Your task to perform on an android device: Search for the best gaming mouse on Best Buy. Image 0: 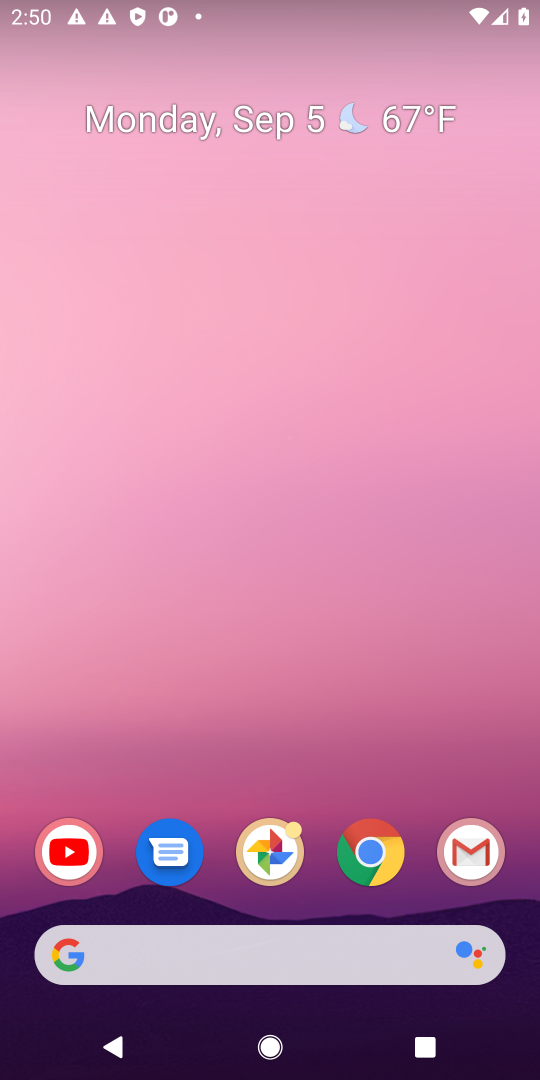
Step 0: click (370, 854)
Your task to perform on an android device: Search for the best gaming mouse on Best Buy. Image 1: 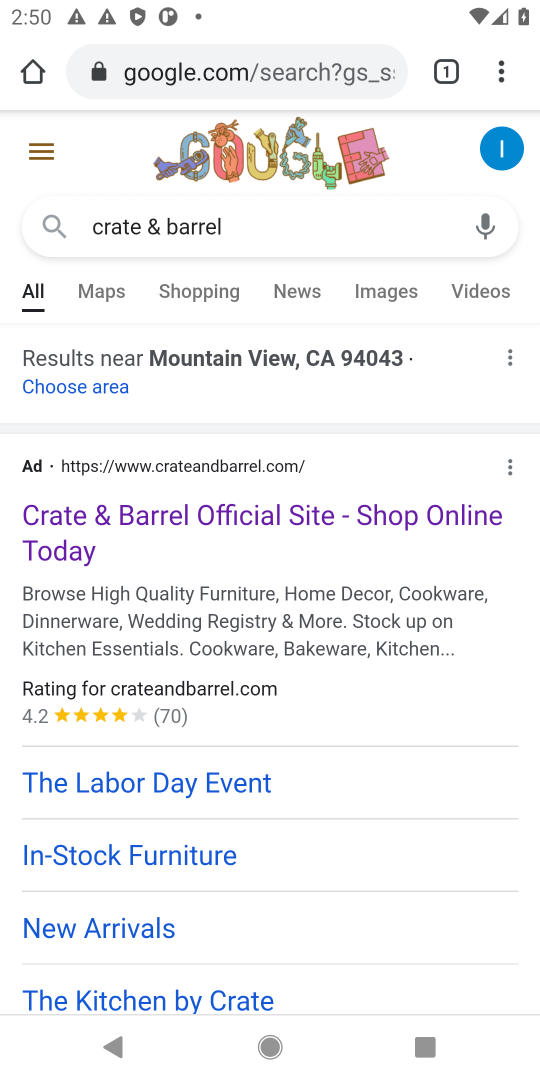
Step 1: click (248, 224)
Your task to perform on an android device: Search for the best gaming mouse on Best Buy. Image 2: 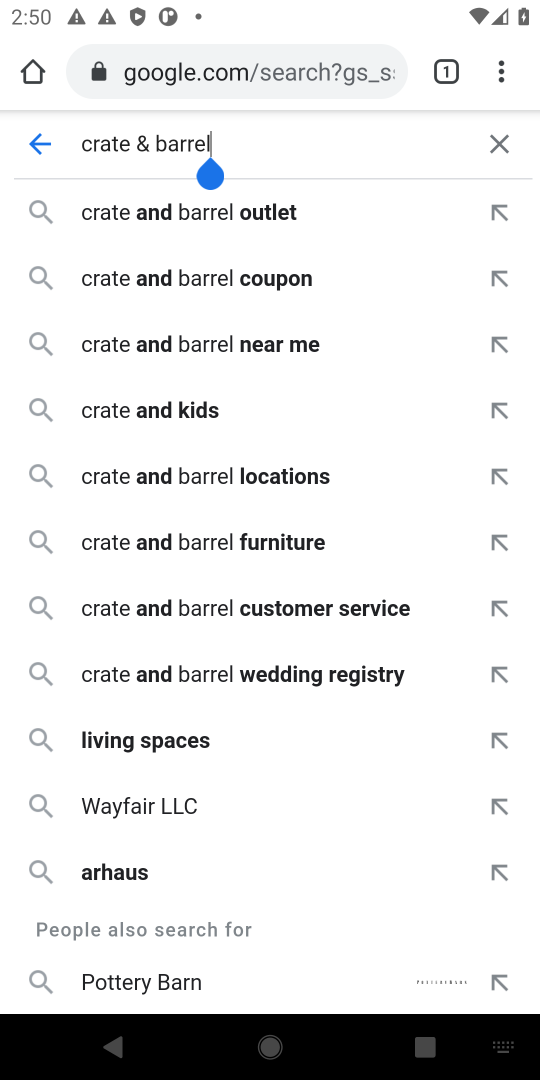
Step 2: click (502, 141)
Your task to perform on an android device: Search for the best gaming mouse on Best Buy. Image 3: 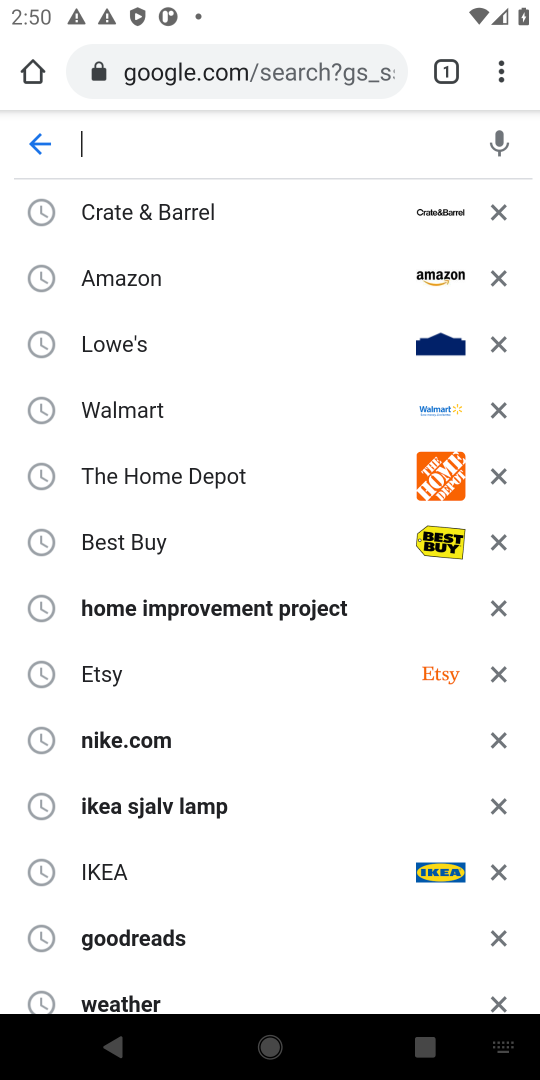
Step 3: type "Best buy"
Your task to perform on an android device: Search for the best gaming mouse on Best Buy. Image 4: 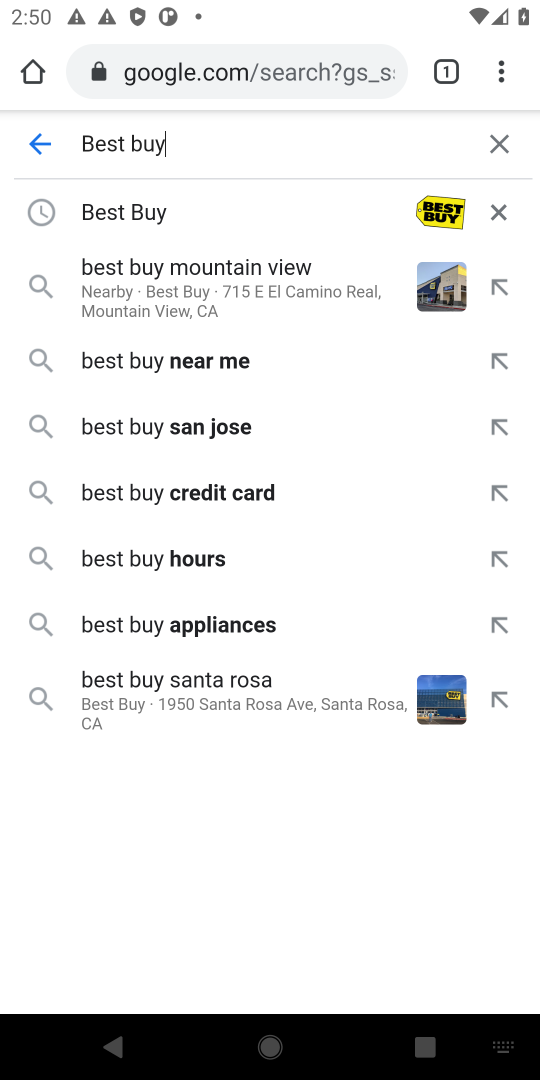
Step 4: click (122, 211)
Your task to perform on an android device: Search for the best gaming mouse on Best Buy. Image 5: 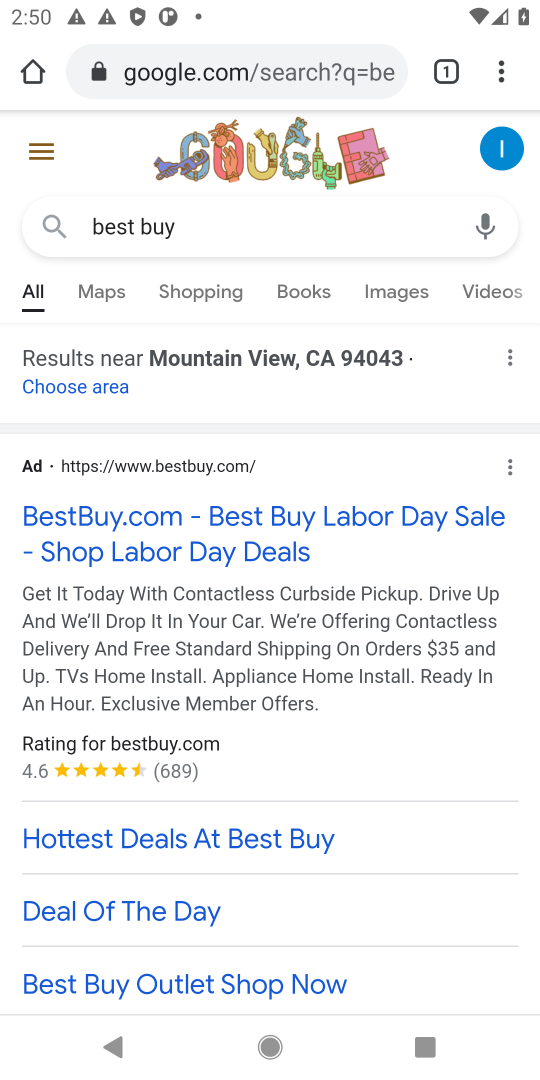
Step 5: click (126, 530)
Your task to perform on an android device: Search for the best gaming mouse on Best Buy. Image 6: 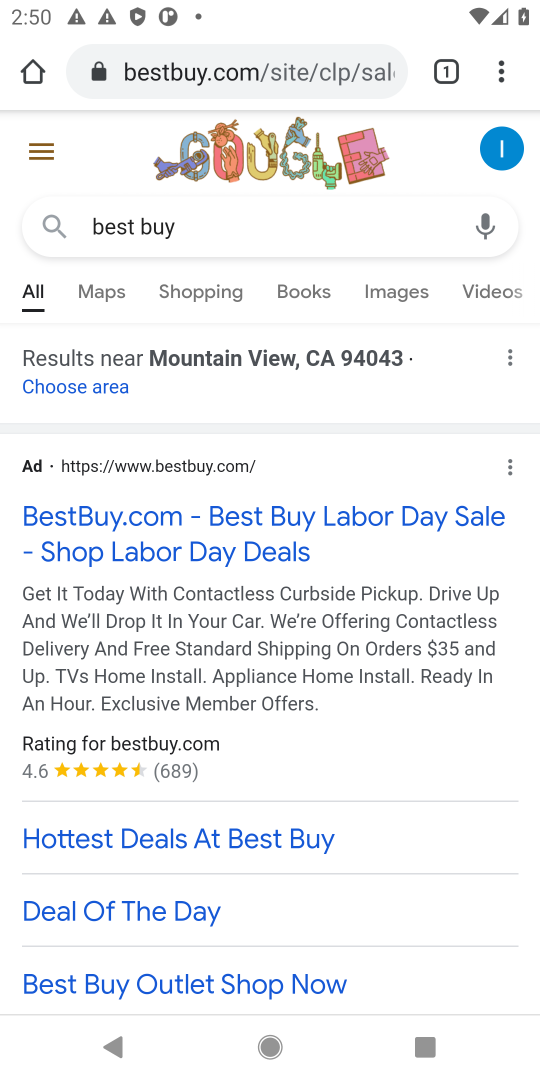
Step 6: click (264, 515)
Your task to perform on an android device: Search for the best gaming mouse on Best Buy. Image 7: 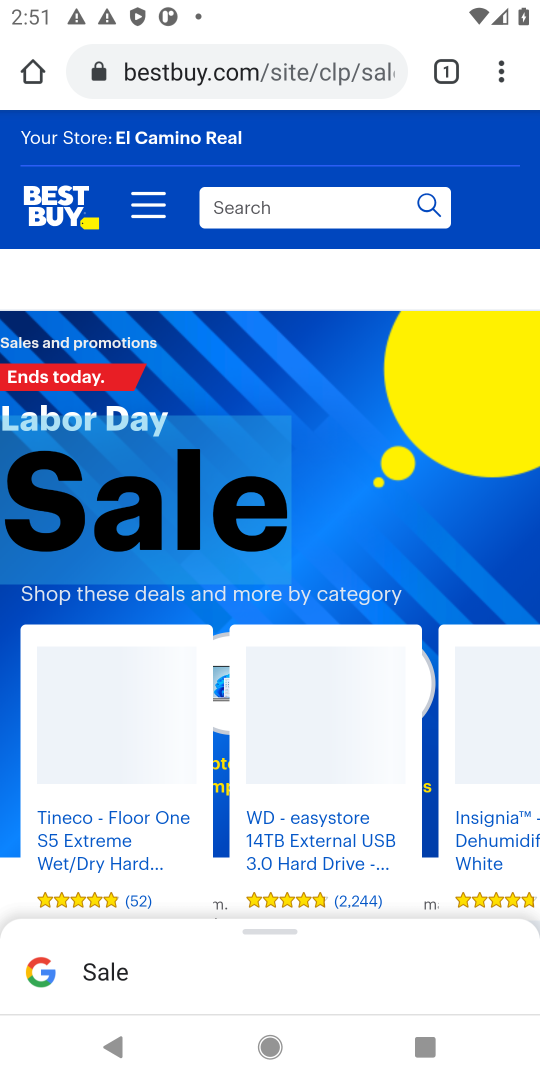
Step 7: click (282, 200)
Your task to perform on an android device: Search for the best gaming mouse on Best Buy. Image 8: 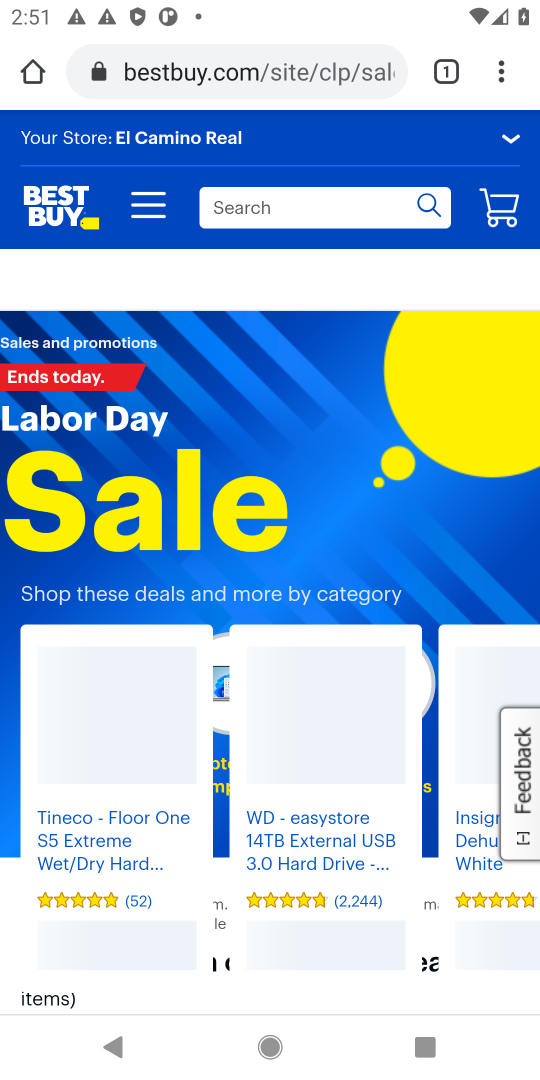
Step 8: type "gaming mouse"
Your task to perform on an android device: Search for the best gaming mouse on Best Buy. Image 9: 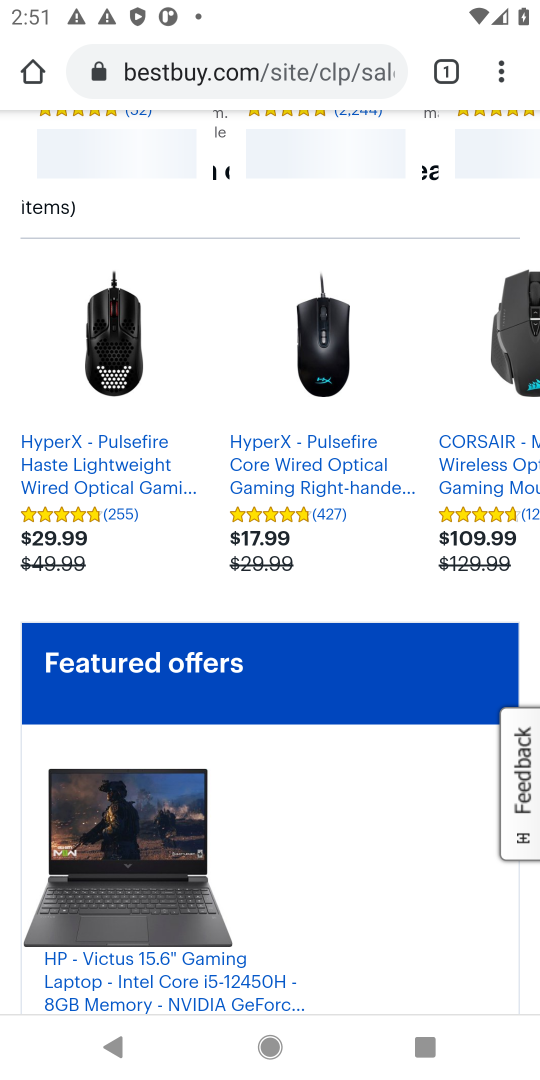
Step 9: drag from (223, 280) to (164, 978)
Your task to perform on an android device: Search for the best gaming mouse on Best Buy. Image 10: 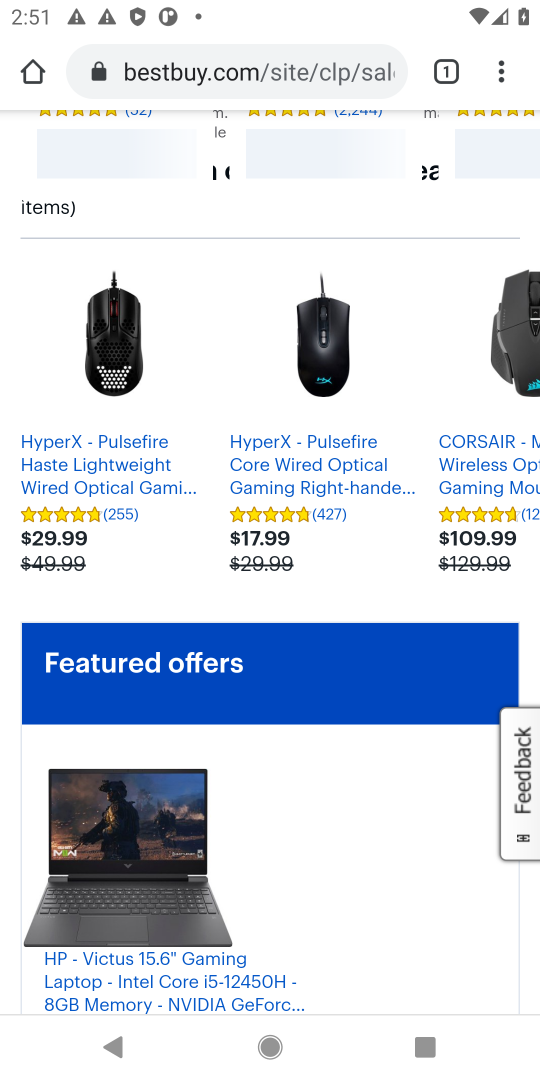
Step 10: drag from (201, 359) to (200, 622)
Your task to perform on an android device: Search for the best gaming mouse on Best Buy. Image 11: 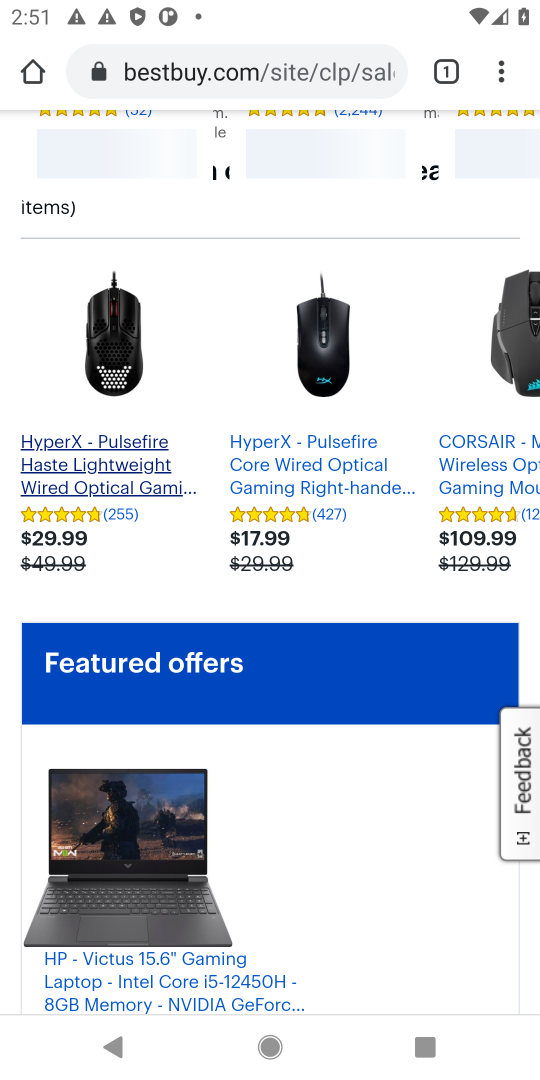
Step 11: drag from (218, 194) to (195, 694)
Your task to perform on an android device: Search for the best gaming mouse on Best Buy. Image 12: 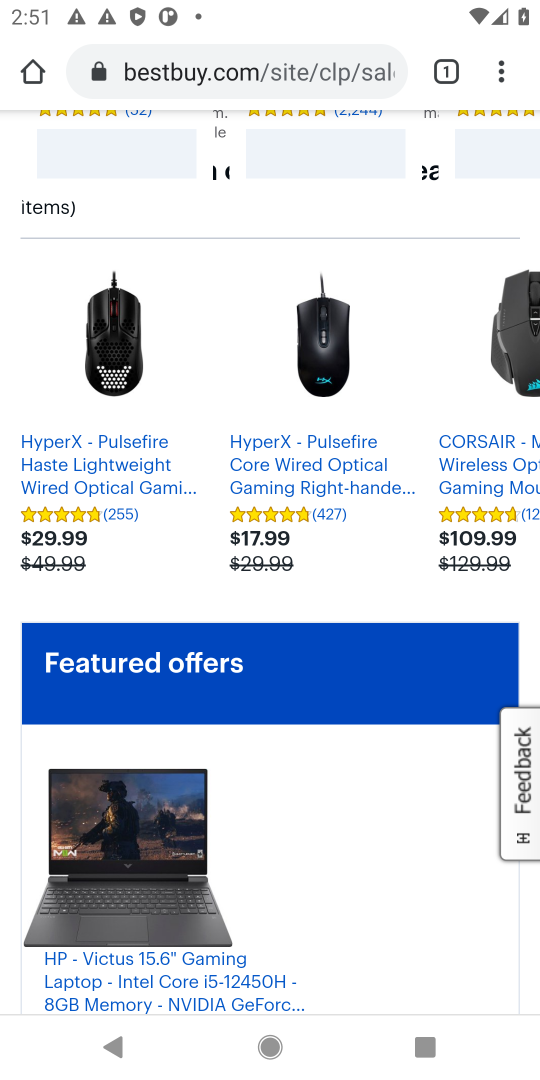
Step 12: drag from (398, 957) to (288, 137)
Your task to perform on an android device: Search for the best gaming mouse on Best Buy. Image 13: 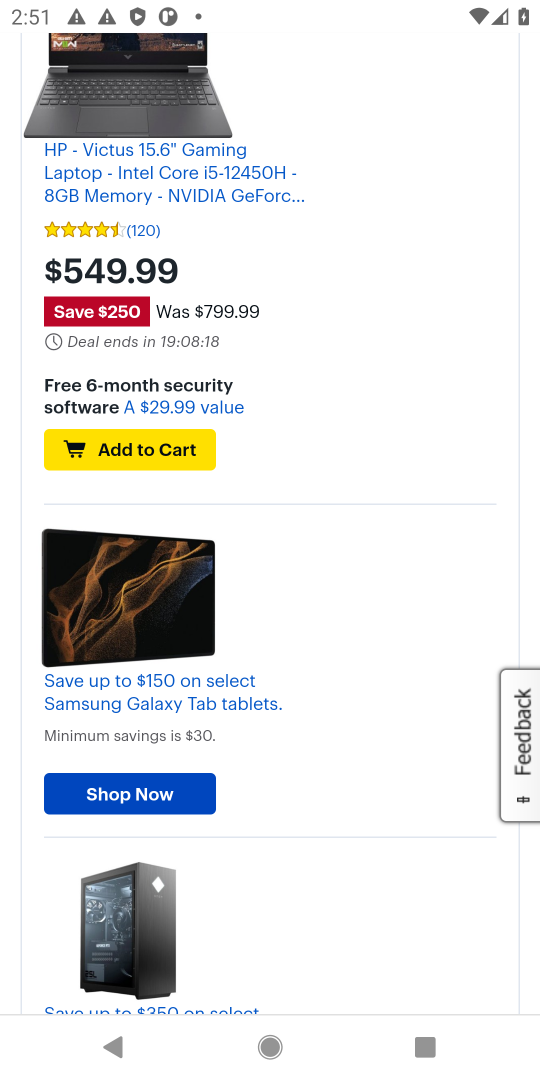
Step 13: click (327, 195)
Your task to perform on an android device: Search for the best gaming mouse on Best Buy. Image 14: 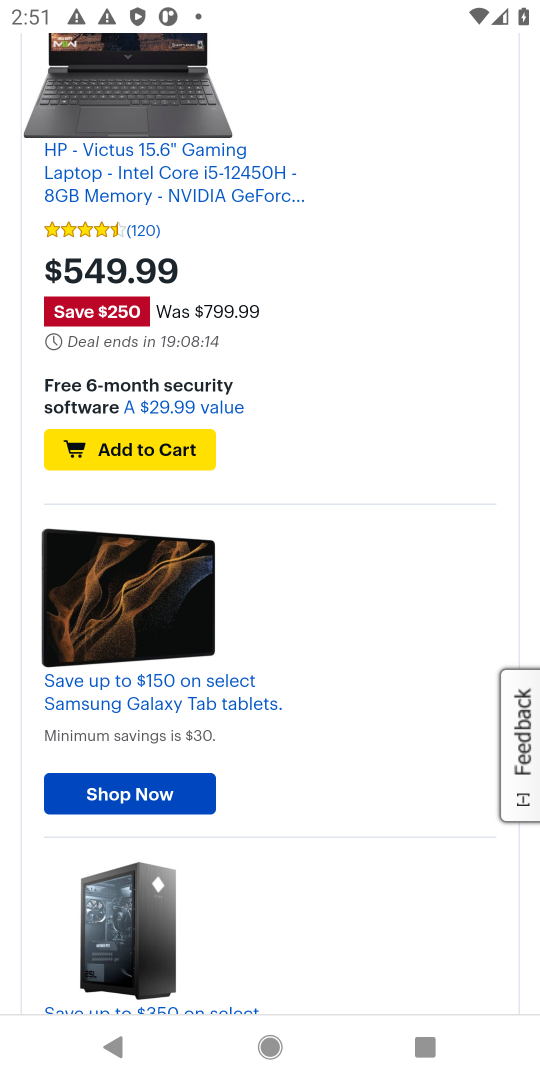
Step 14: task complete